Your task to perform on an android device: turn on translation in the chrome app Image 0: 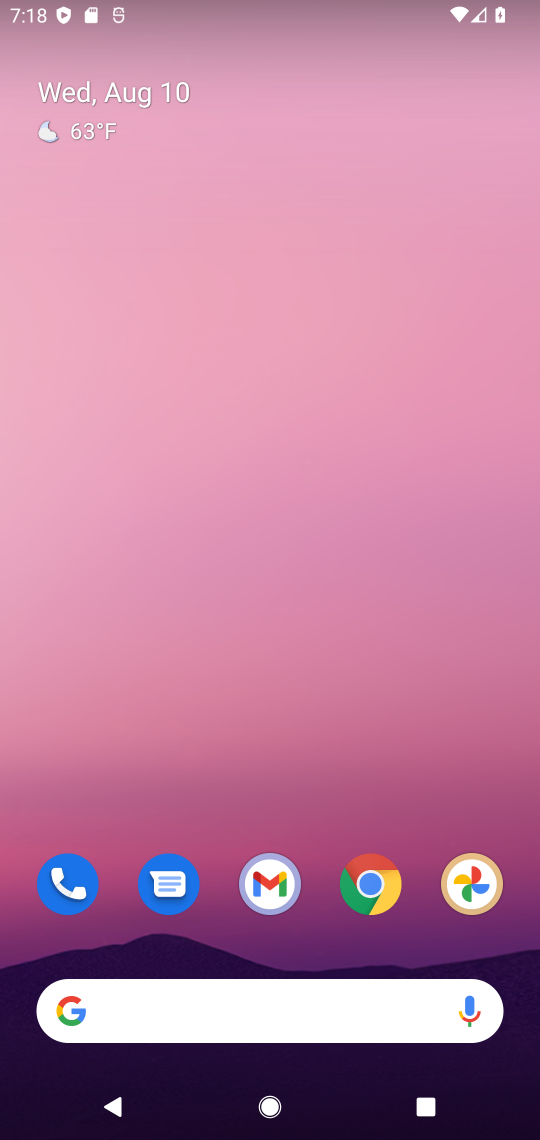
Step 0: click (364, 881)
Your task to perform on an android device: turn on translation in the chrome app Image 1: 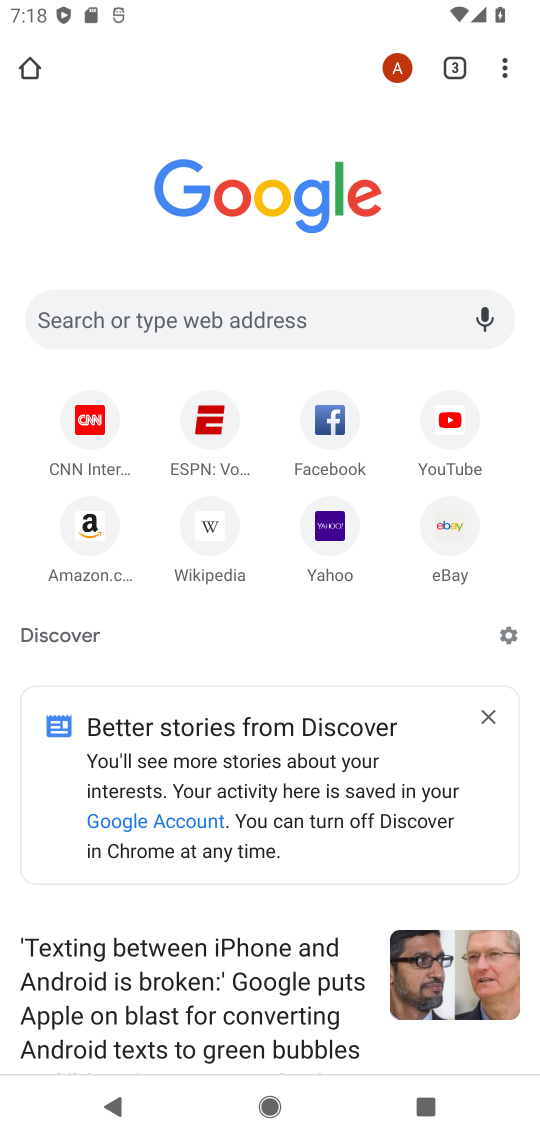
Step 1: click (512, 61)
Your task to perform on an android device: turn on translation in the chrome app Image 2: 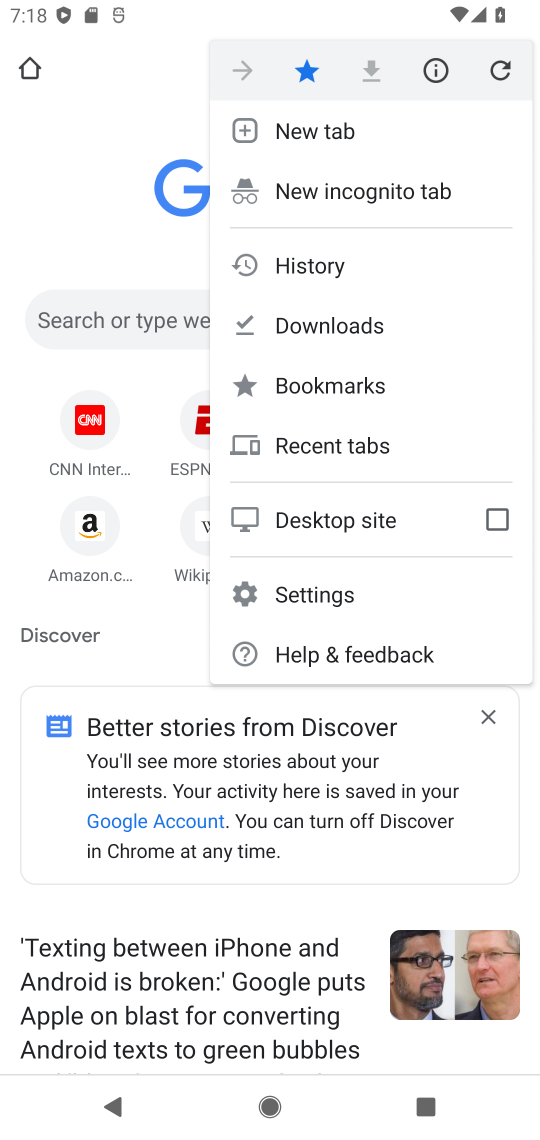
Step 2: click (311, 592)
Your task to perform on an android device: turn on translation in the chrome app Image 3: 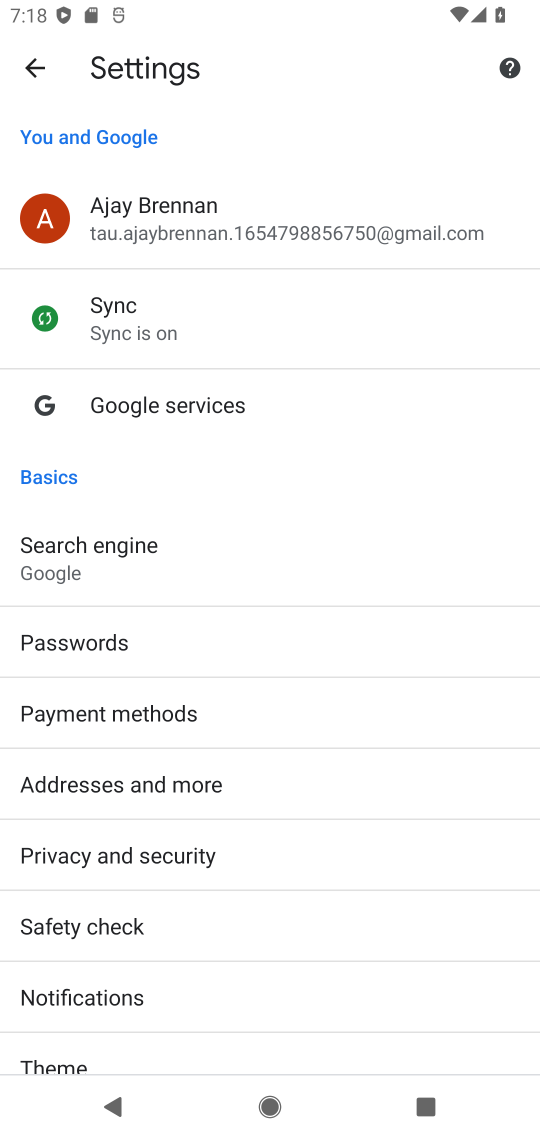
Step 3: drag from (304, 972) to (286, 383)
Your task to perform on an android device: turn on translation in the chrome app Image 4: 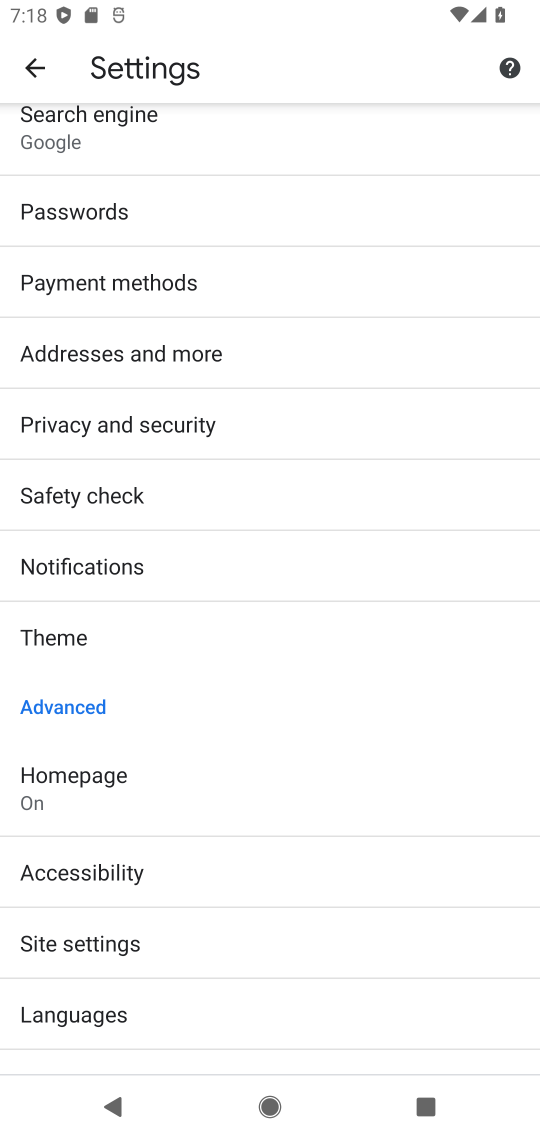
Step 4: click (94, 1002)
Your task to perform on an android device: turn on translation in the chrome app Image 5: 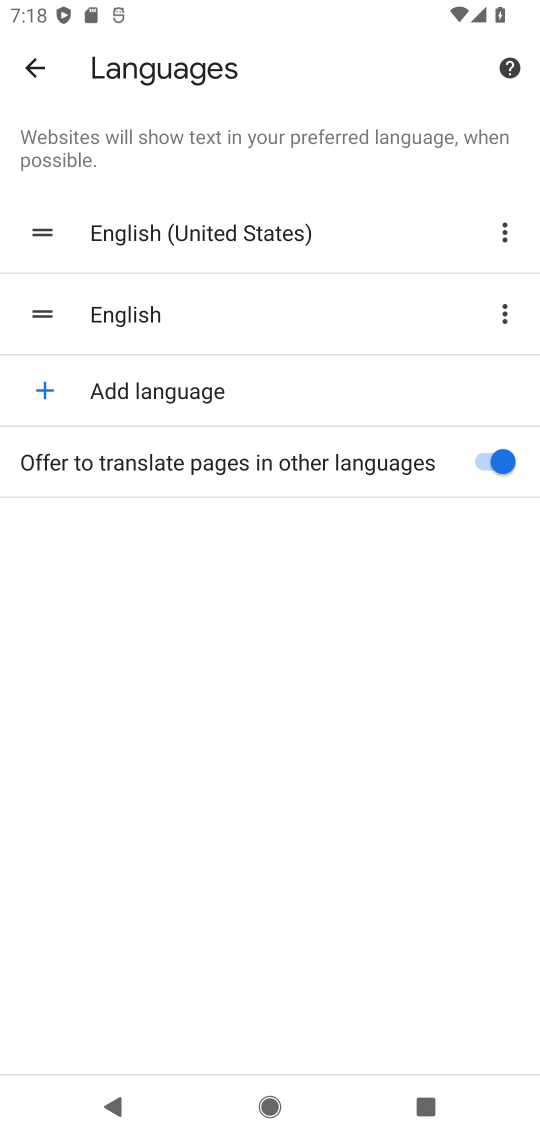
Step 5: task complete